Your task to perform on an android device: add a contact Image 0: 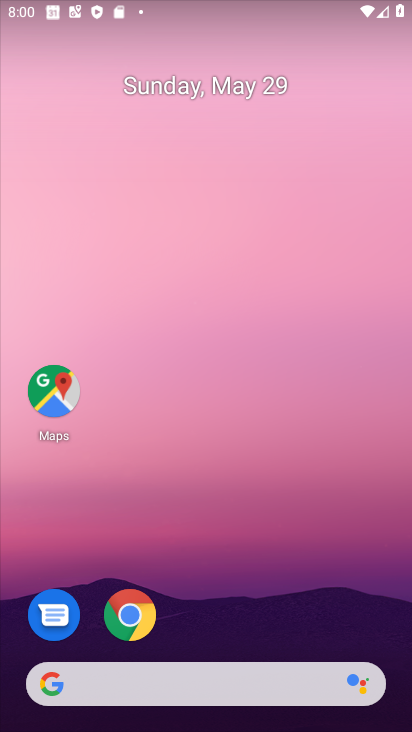
Step 0: drag from (223, 584) to (175, 205)
Your task to perform on an android device: add a contact Image 1: 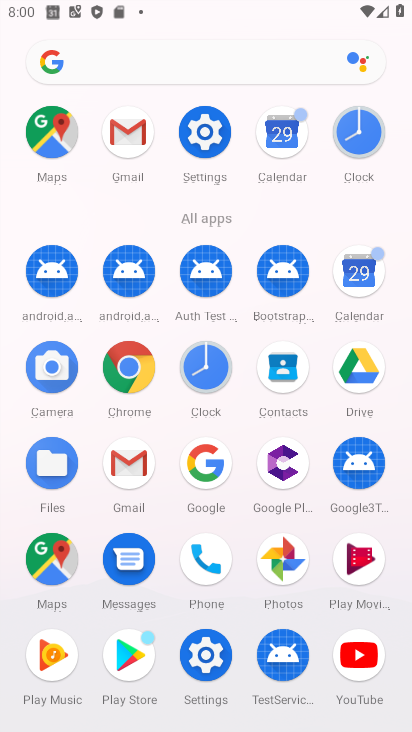
Step 1: click (288, 372)
Your task to perform on an android device: add a contact Image 2: 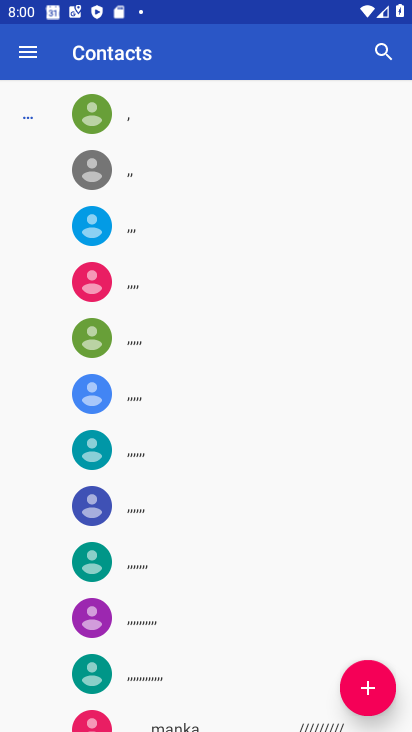
Step 2: click (374, 690)
Your task to perform on an android device: add a contact Image 3: 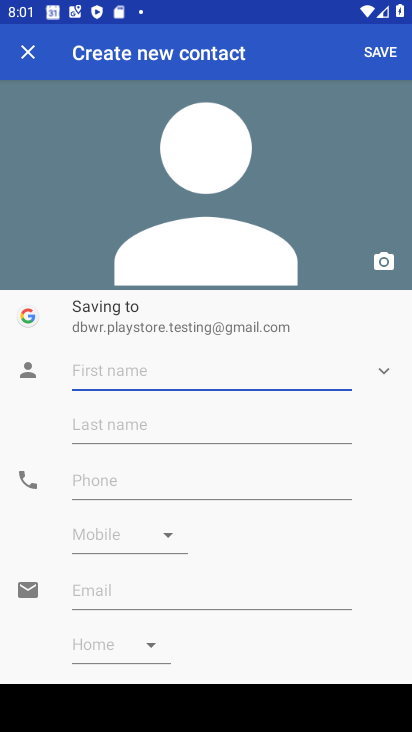
Step 3: type "fessxwqq"
Your task to perform on an android device: add a contact Image 4: 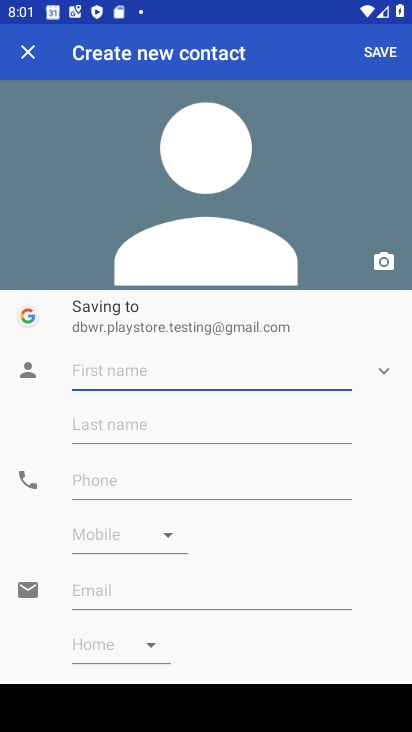
Step 4: click (134, 373)
Your task to perform on an android device: add a contact Image 5: 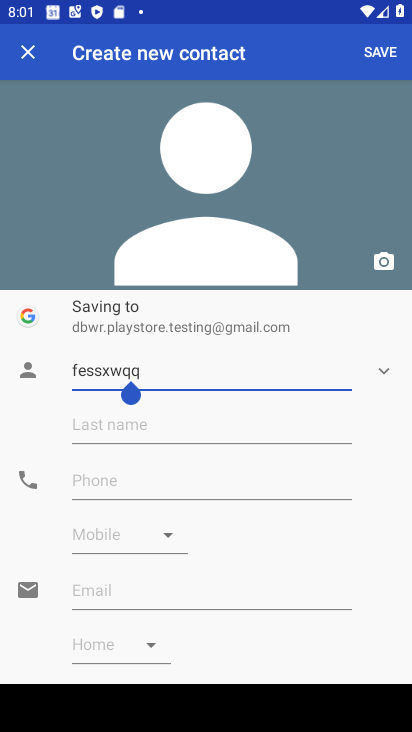
Step 5: click (133, 482)
Your task to perform on an android device: add a contact Image 6: 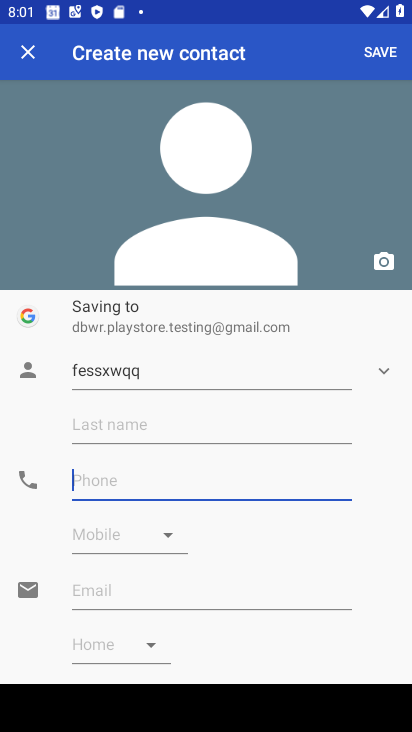
Step 6: click (133, 481)
Your task to perform on an android device: add a contact Image 7: 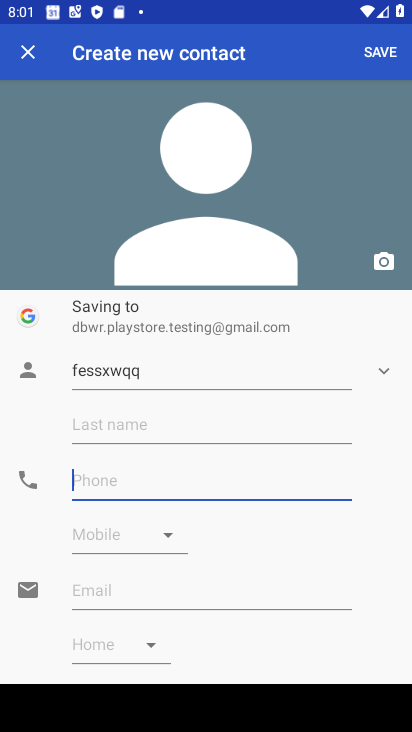
Step 7: type "242556666666662"
Your task to perform on an android device: add a contact Image 8: 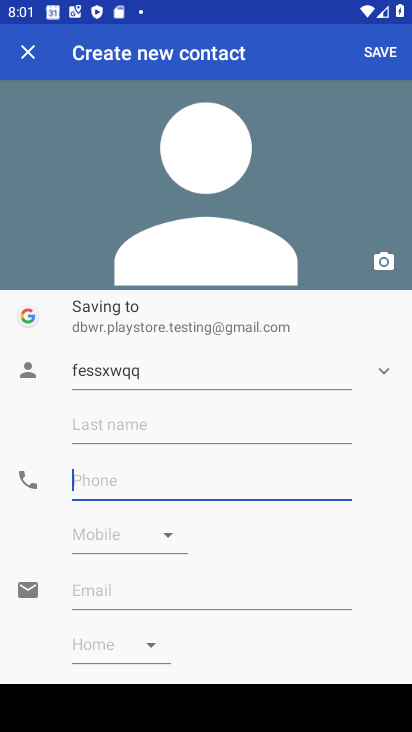
Step 8: click (150, 475)
Your task to perform on an android device: add a contact Image 9: 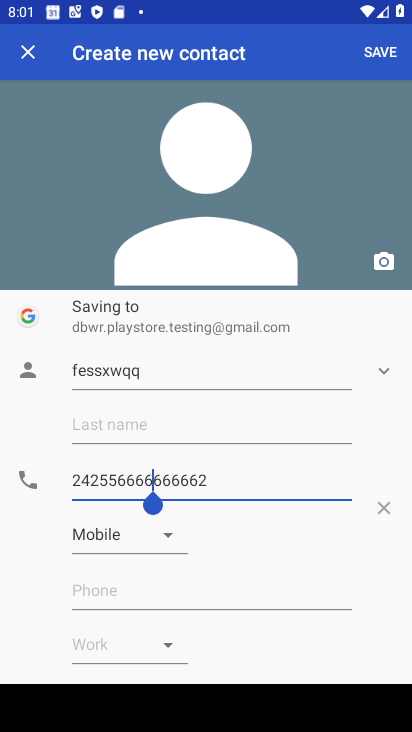
Step 9: click (372, 50)
Your task to perform on an android device: add a contact Image 10: 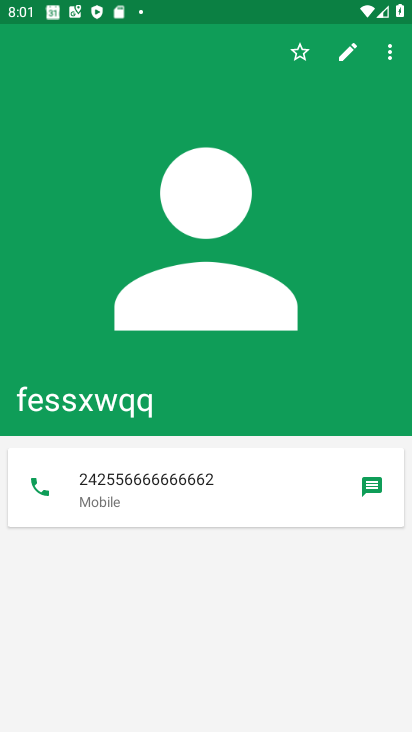
Step 10: task complete